Your task to perform on an android device: move an email to a new category in the gmail app Image 0: 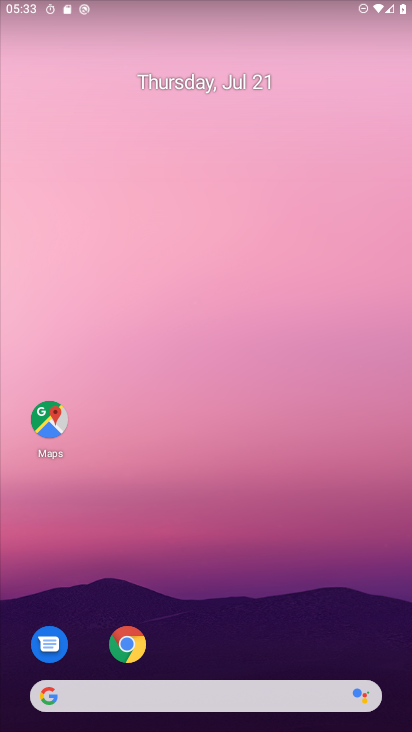
Step 0: drag from (172, 529) to (177, 162)
Your task to perform on an android device: move an email to a new category in the gmail app Image 1: 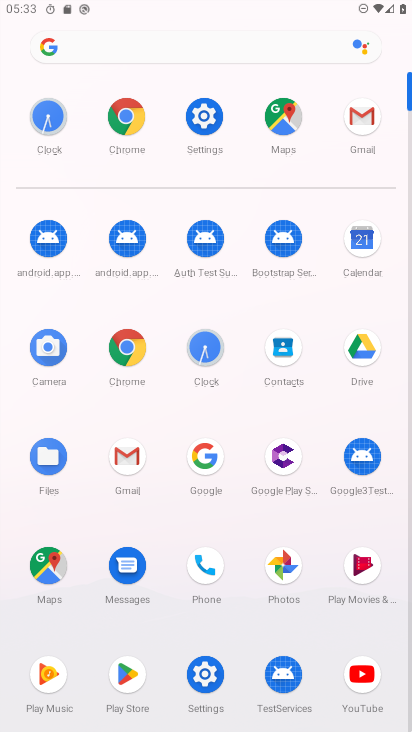
Step 1: click (366, 124)
Your task to perform on an android device: move an email to a new category in the gmail app Image 2: 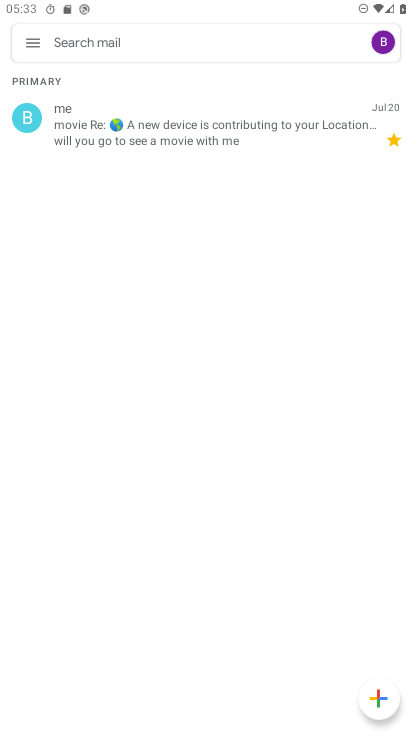
Step 2: click (287, 128)
Your task to perform on an android device: move an email to a new category in the gmail app Image 3: 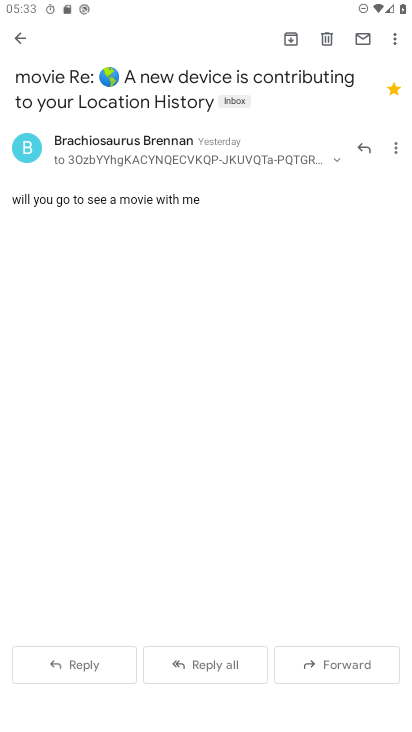
Step 3: click (394, 38)
Your task to perform on an android device: move an email to a new category in the gmail app Image 4: 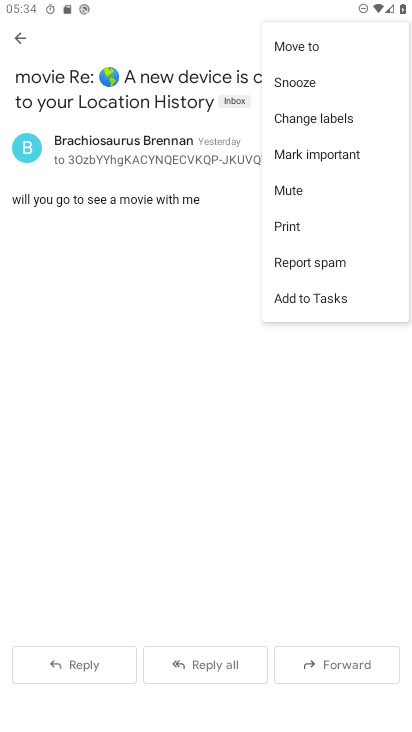
Step 4: click (316, 51)
Your task to perform on an android device: move an email to a new category in the gmail app Image 5: 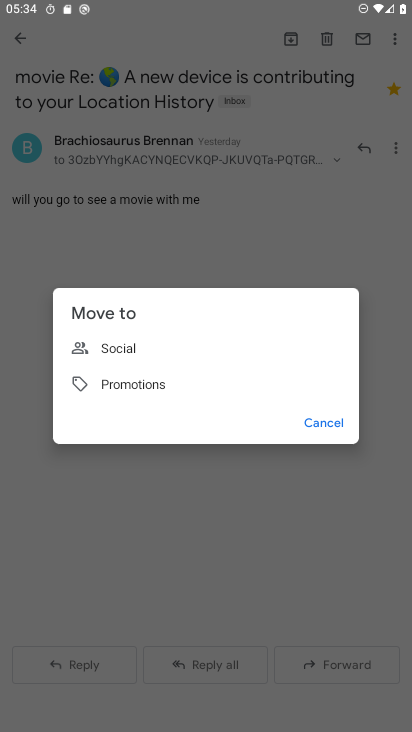
Step 5: click (130, 348)
Your task to perform on an android device: move an email to a new category in the gmail app Image 6: 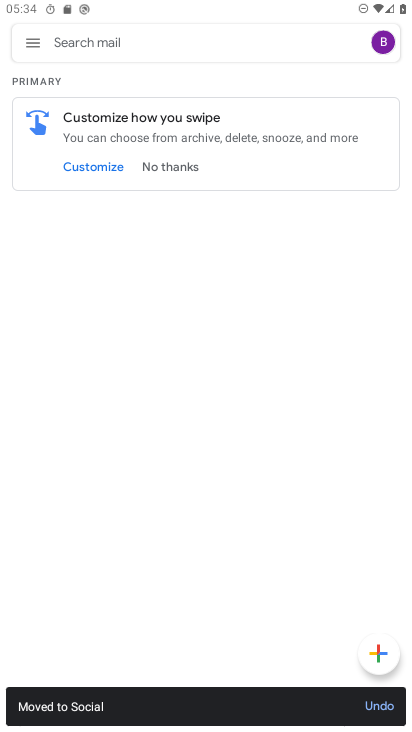
Step 6: task complete